Your task to perform on an android device: change notifications settings Image 0: 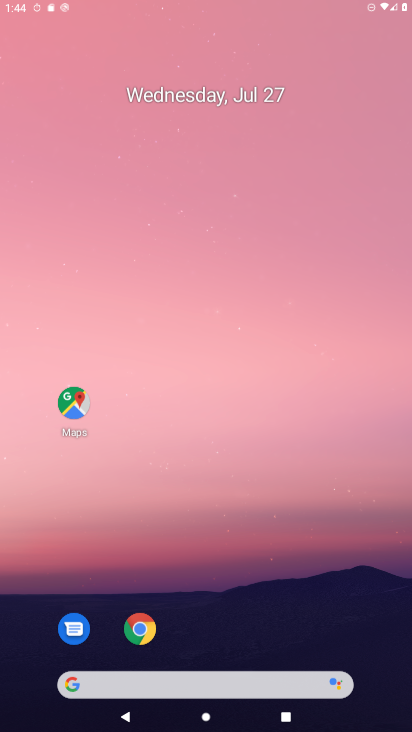
Step 0: press home button
Your task to perform on an android device: change notifications settings Image 1: 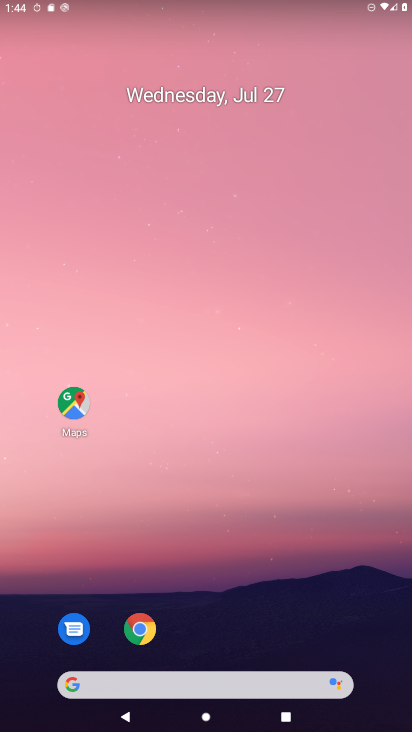
Step 1: drag from (253, 648) to (275, 34)
Your task to perform on an android device: change notifications settings Image 2: 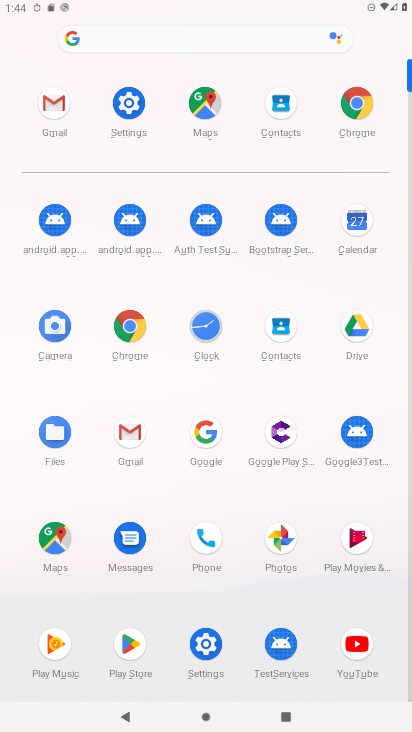
Step 2: click (127, 106)
Your task to perform on an android device: change notifications settings Image 3: 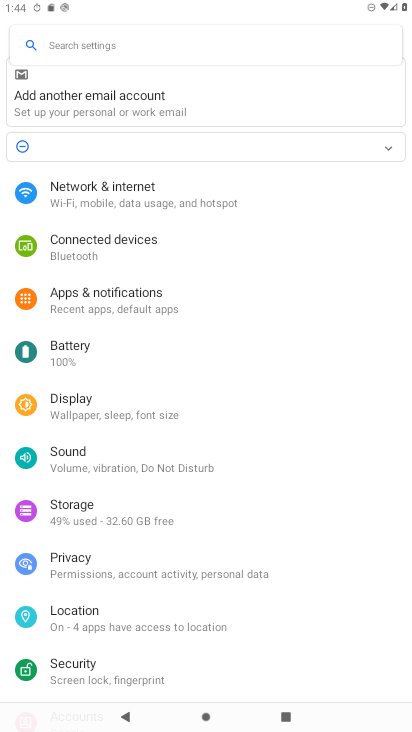
Step 3: click (100, 308)
Your task to perform on an android device: change notifications settings Image 4: 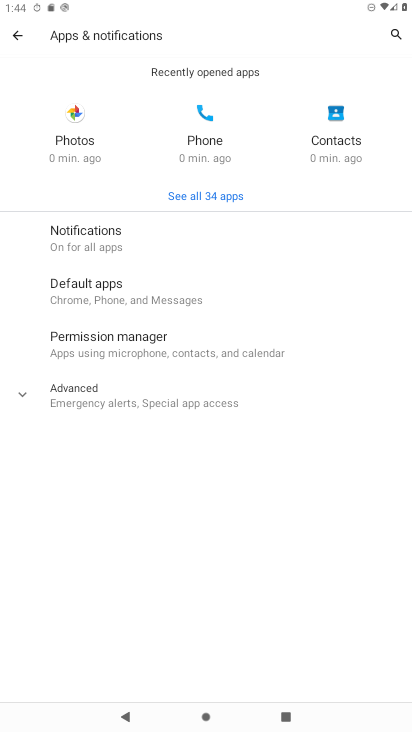
Step 4: click (93, 247)
Your task to perform on an android device: change notifications settings Image 5: 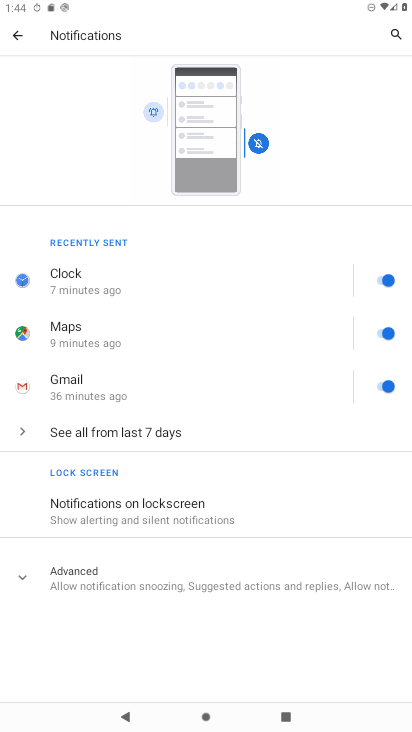
Step 5: click (389, 333)
Your task to perform on an android device: change notifications settings Image 6: 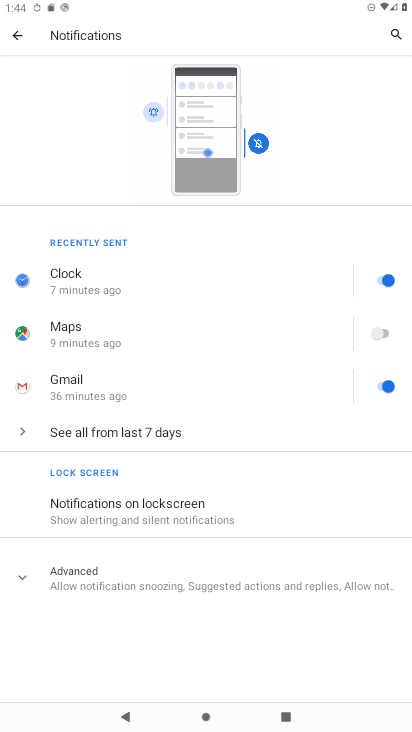
Step 6: task complete